Your task to perform on an android device: Is it going to rain tomorrow? Image 0: 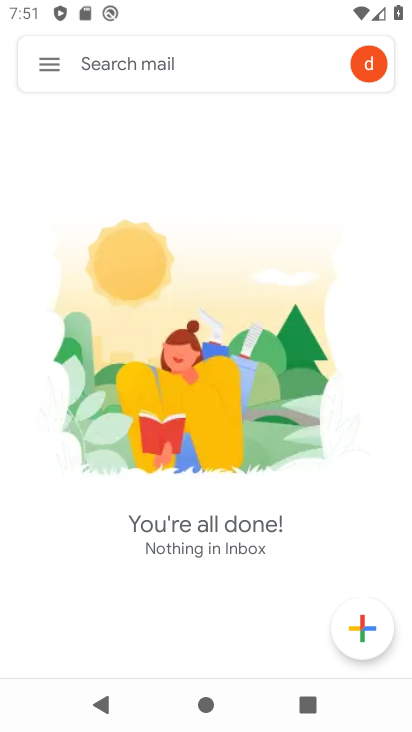
Step 0: press home button
Your task to perform on an android device: Is it going to rain tomorrow? Image 1: 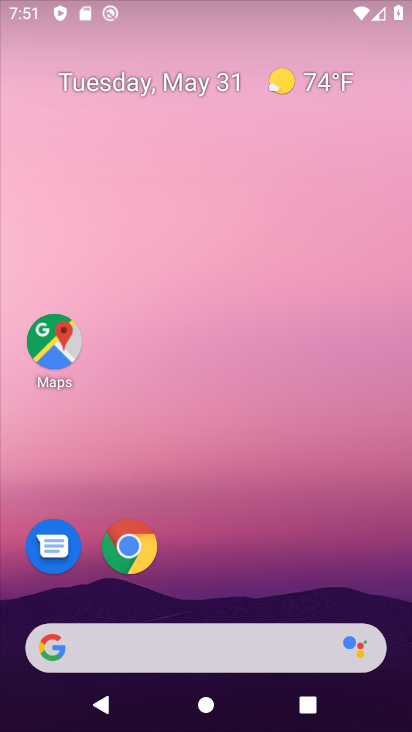
Step 1: drag from (205, 630) to (190, 106)
Your task to perform on an android device: Is it going to rain tomorrow? Image 2: 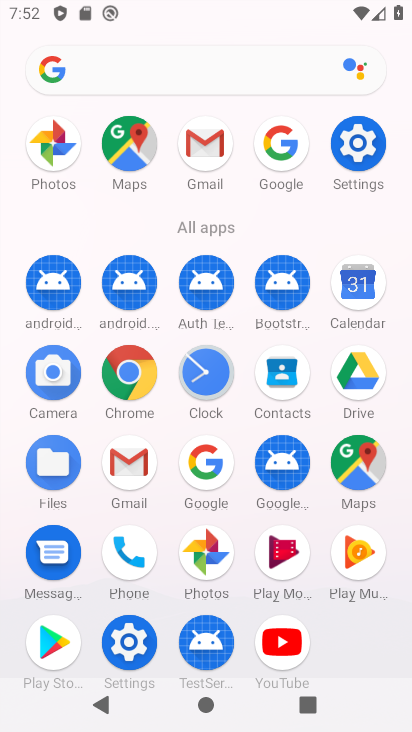
Step 2: click (207, 462)
Your task to perform on an android device: Is it going to rain tomorrow? Image 3: 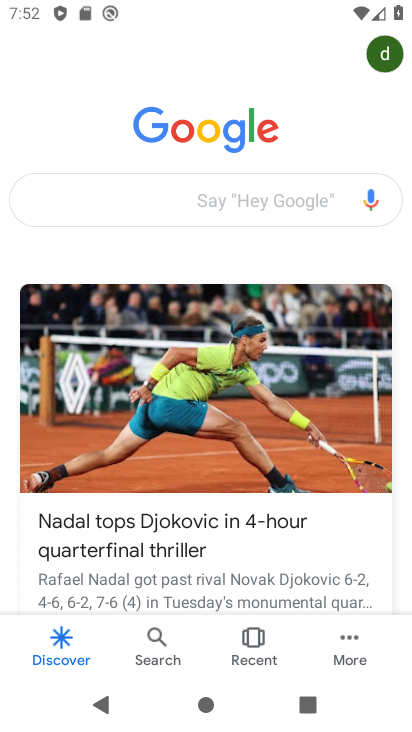
Step 3: click (215, 188)
Your task to perform on an android device: Is it going to rain tomorrow? Image 4: 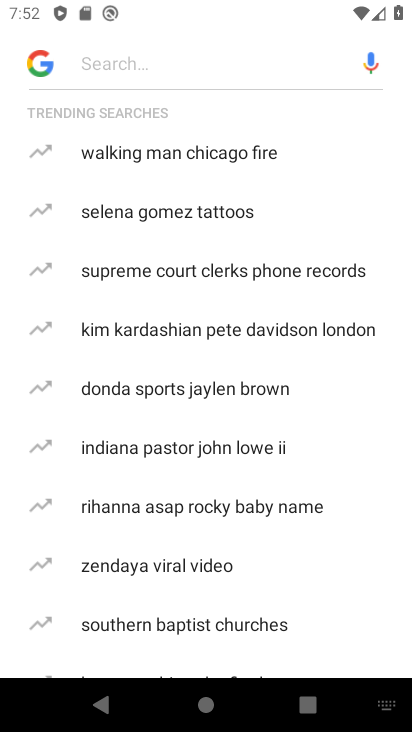
Step 4: drag from (226, 566) to (174, 149)
Your task to perform on an android device: Is it going to rain tomorrow? Image 5: 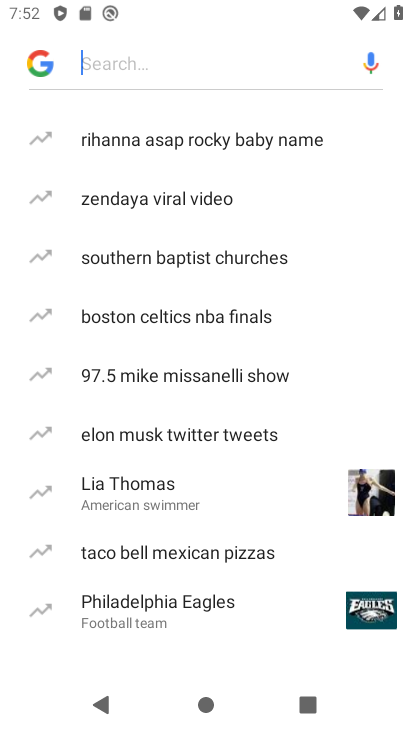
Step 5: type "is it going to rain tomorrow"
Your task to perform on an android device: Is it going to rain tomorrow? Image 6: 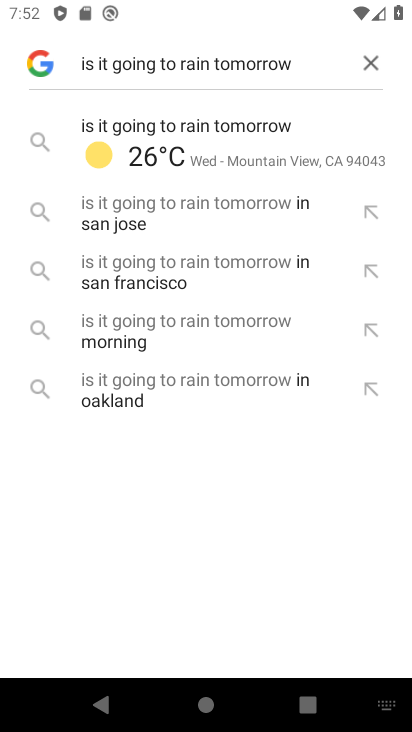
Step 6: click (227, 127)
Your task to perform on an android device: Is it going to rain tomorrow? Image 7: 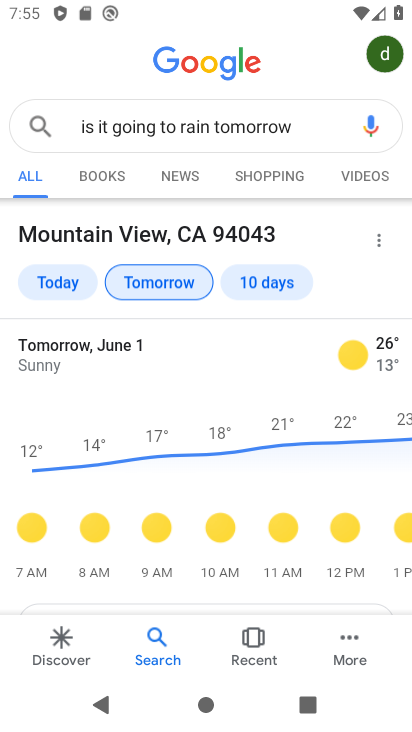
Step 7: task complete